Your task to perform on an android device: set an alarm Image 0: 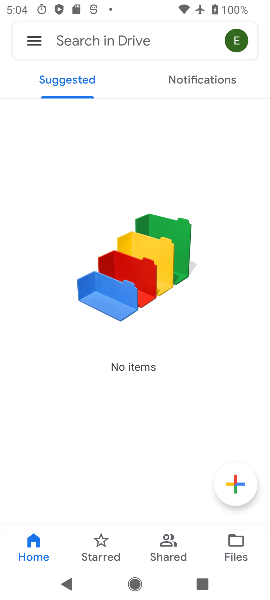
Step 0: press back button
Your task to perform on an android device: set an alarm Image 1: 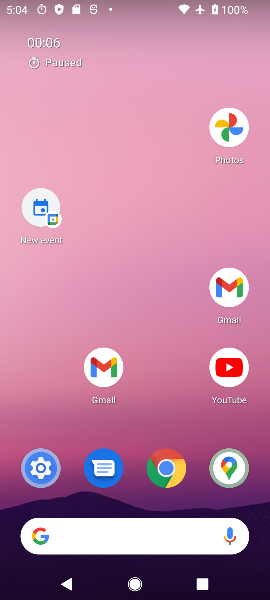
Step 1: drag from (180, 593) to (138, 112)
Your task to perform on an android device: set an alarm Image 2: 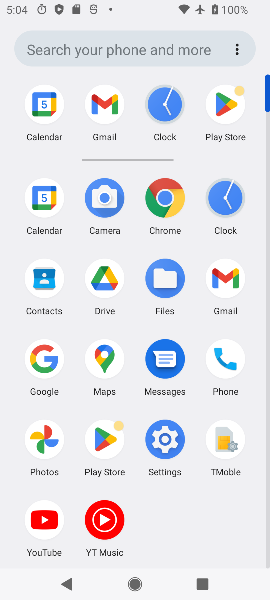
Step 2: drag from (145, 420) to (145, 219)
Your task to perform on an android device: set an alarm Image 3: 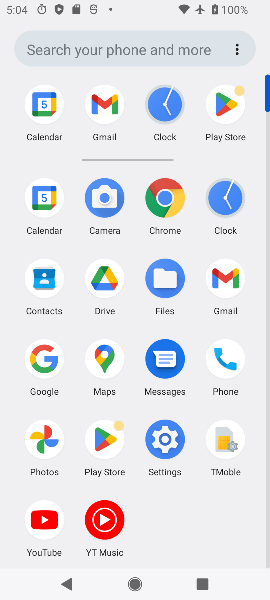
Step 3: click (225, 203)
Your task to perform on an android device: set an alarm Image 4: 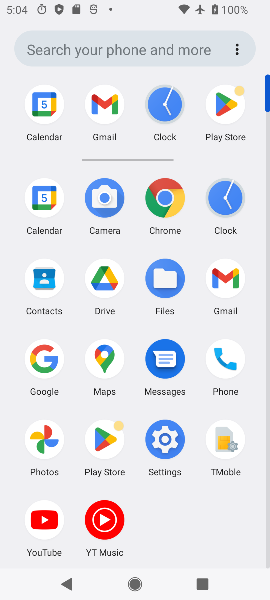
Step 4: click (225, 203)
Your task to perform on an android device: set an alarm Image 5: 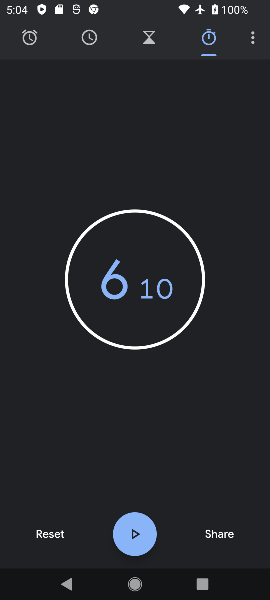
Step 5: click (25, 41)
Your task to perform on an android device: set an alarm Image 6: 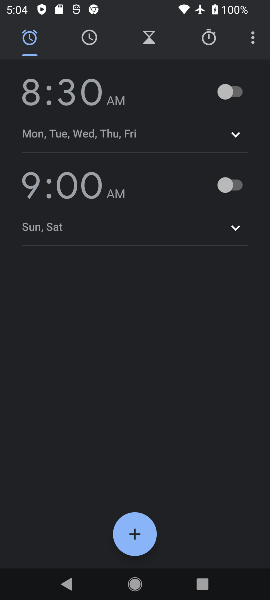
Step 6: click (224, 88)
Your task to perform on an android device: set an alarm Image 7: 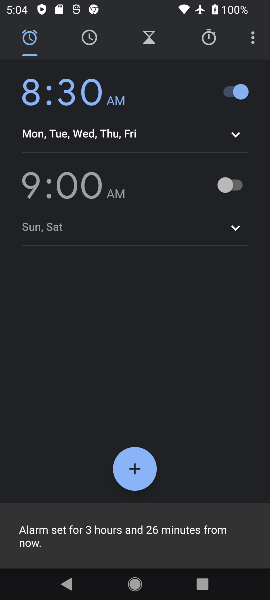
Step 7: task complete